Your task to perform on an android device: change your default location settings in chrome Image 0: 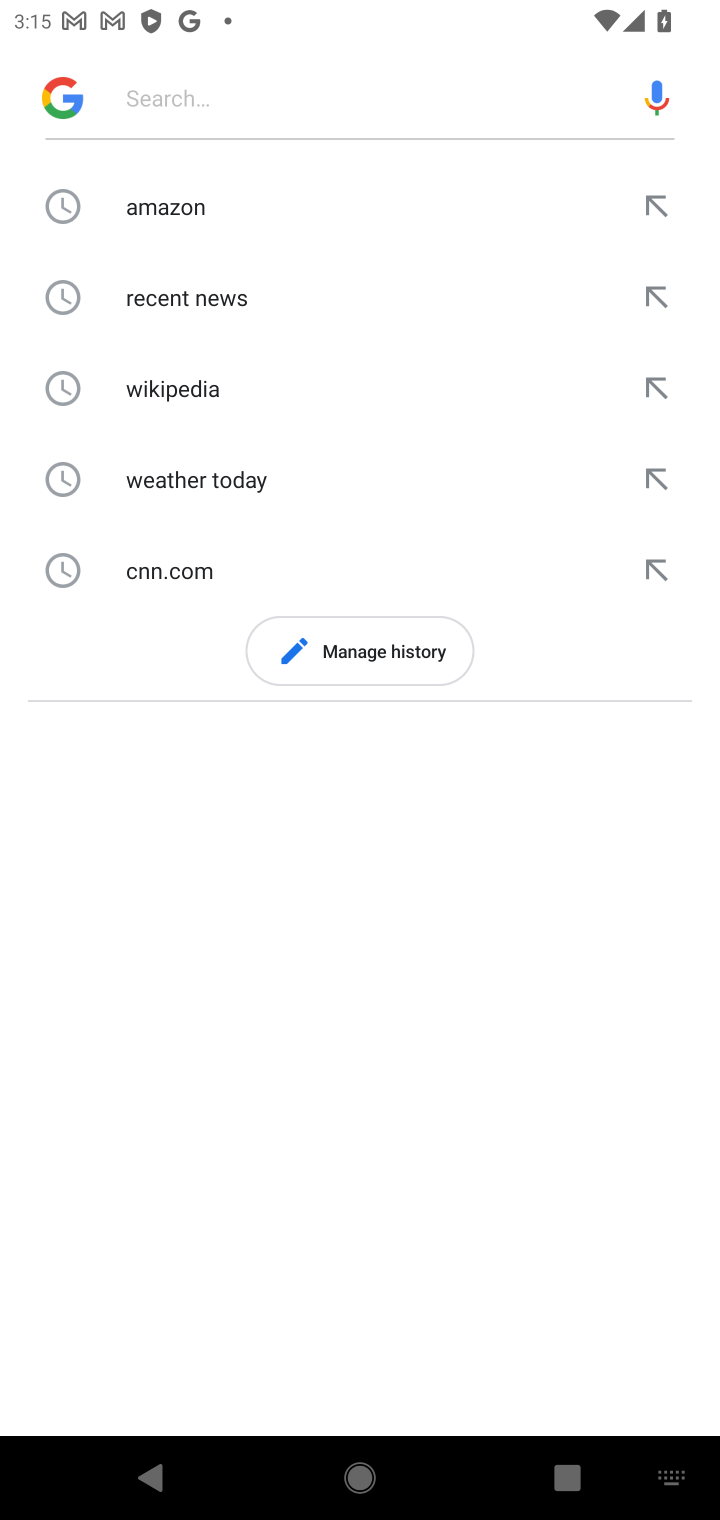
Step 0: press home button
Your task to perform on an android device: change your default location settings in chrome Image 1: 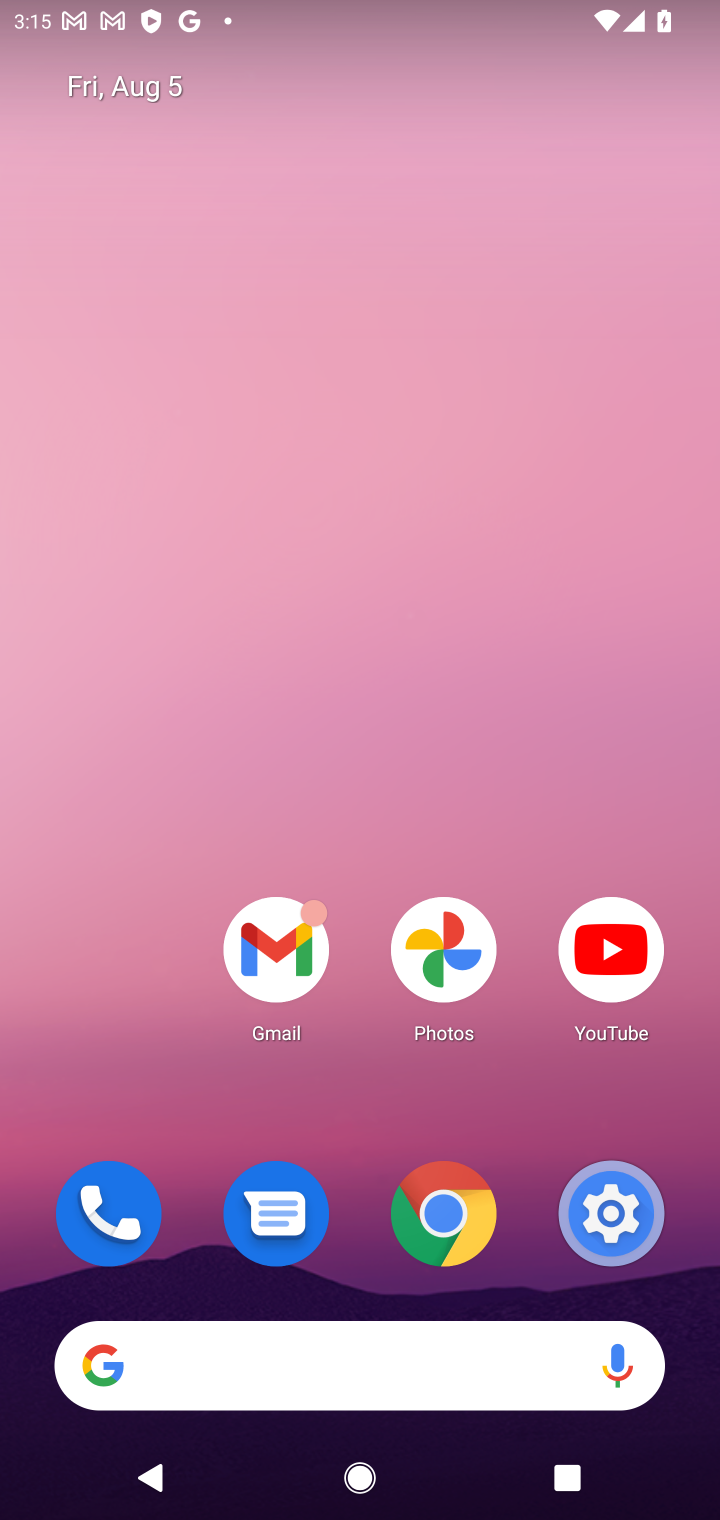
Step 1: click (566, 1235)
Your task to perform on an android device: change your default location settings in chrome Image 2: 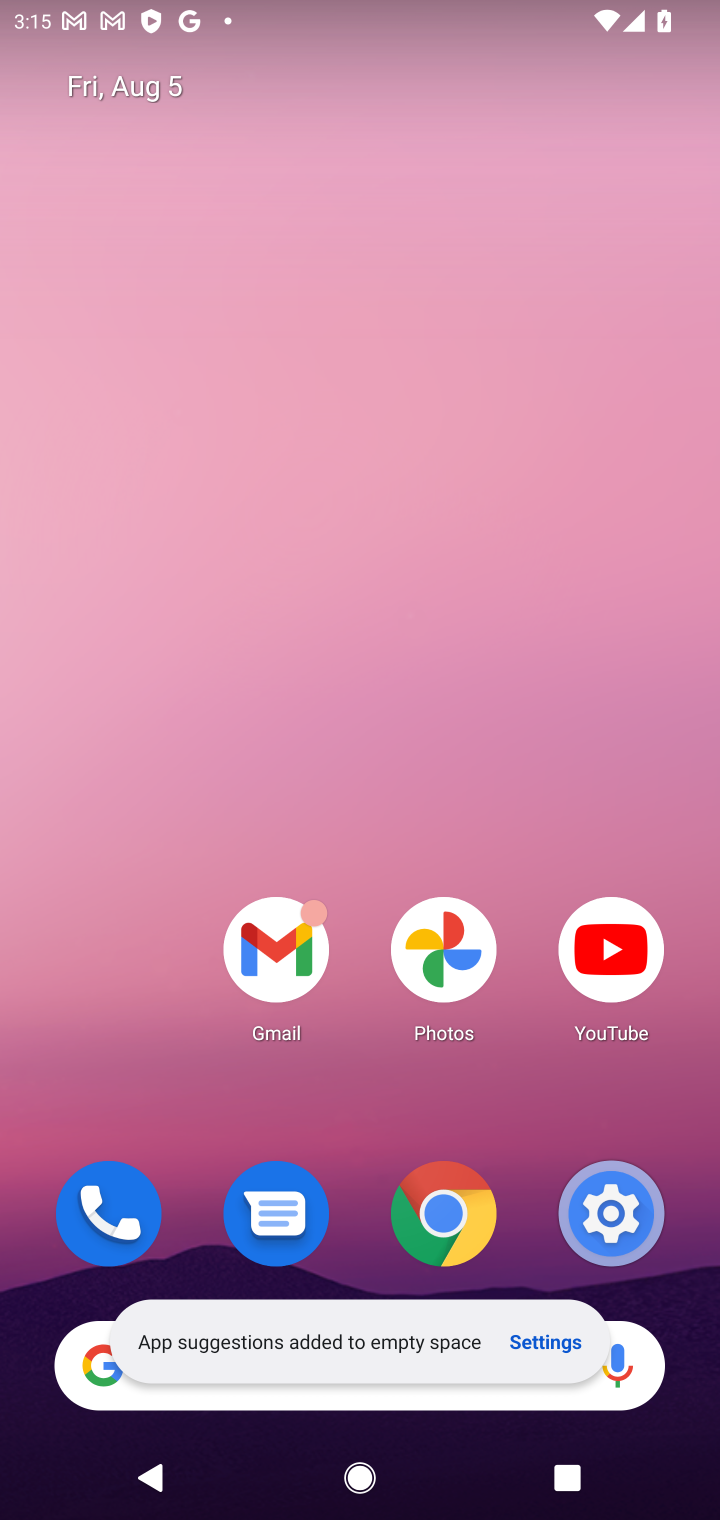
Step 2: click (622, 1222)
Your task to perform on an android device: change your default location settings in chrome Image 3: 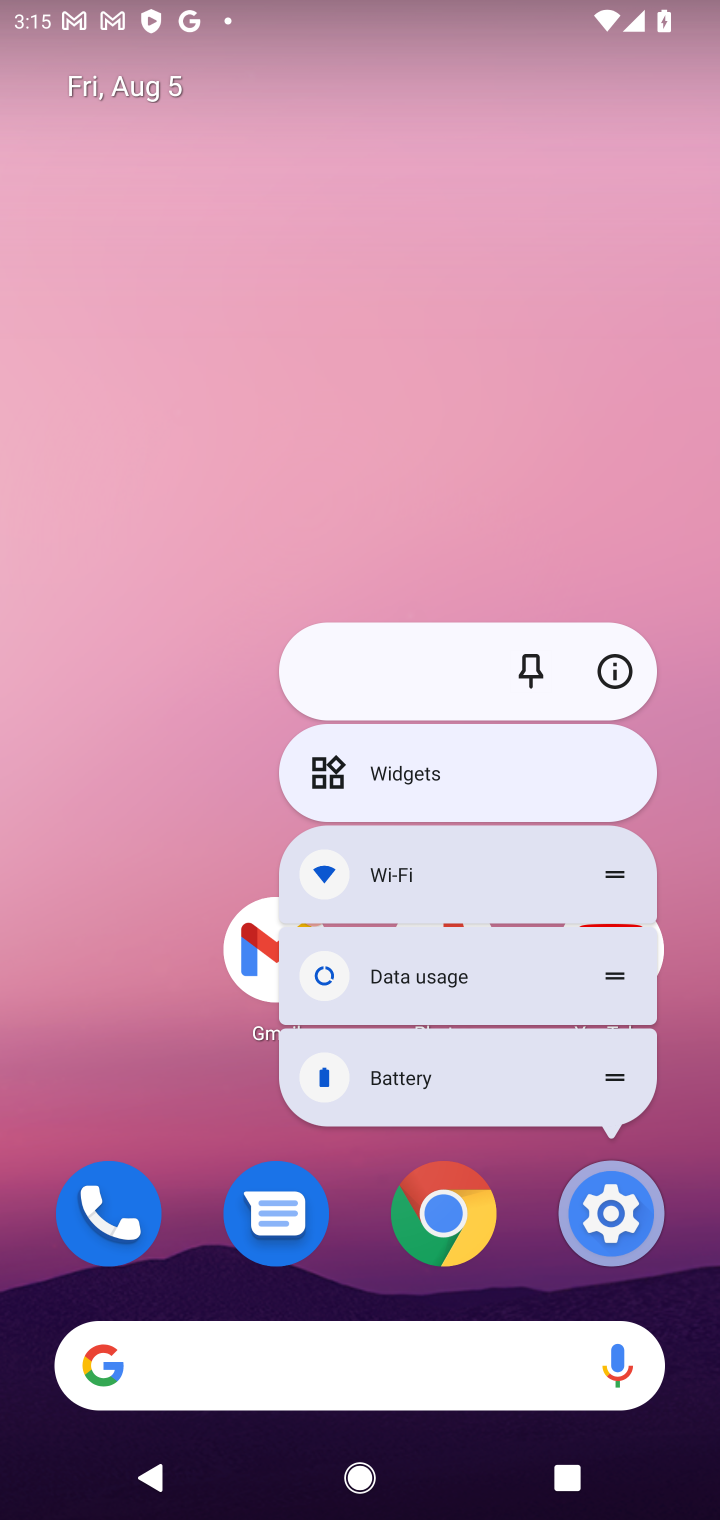
Step 3: click (158, 759)
Your task to perform on an android device: change your default location settings in chrome Image 4: 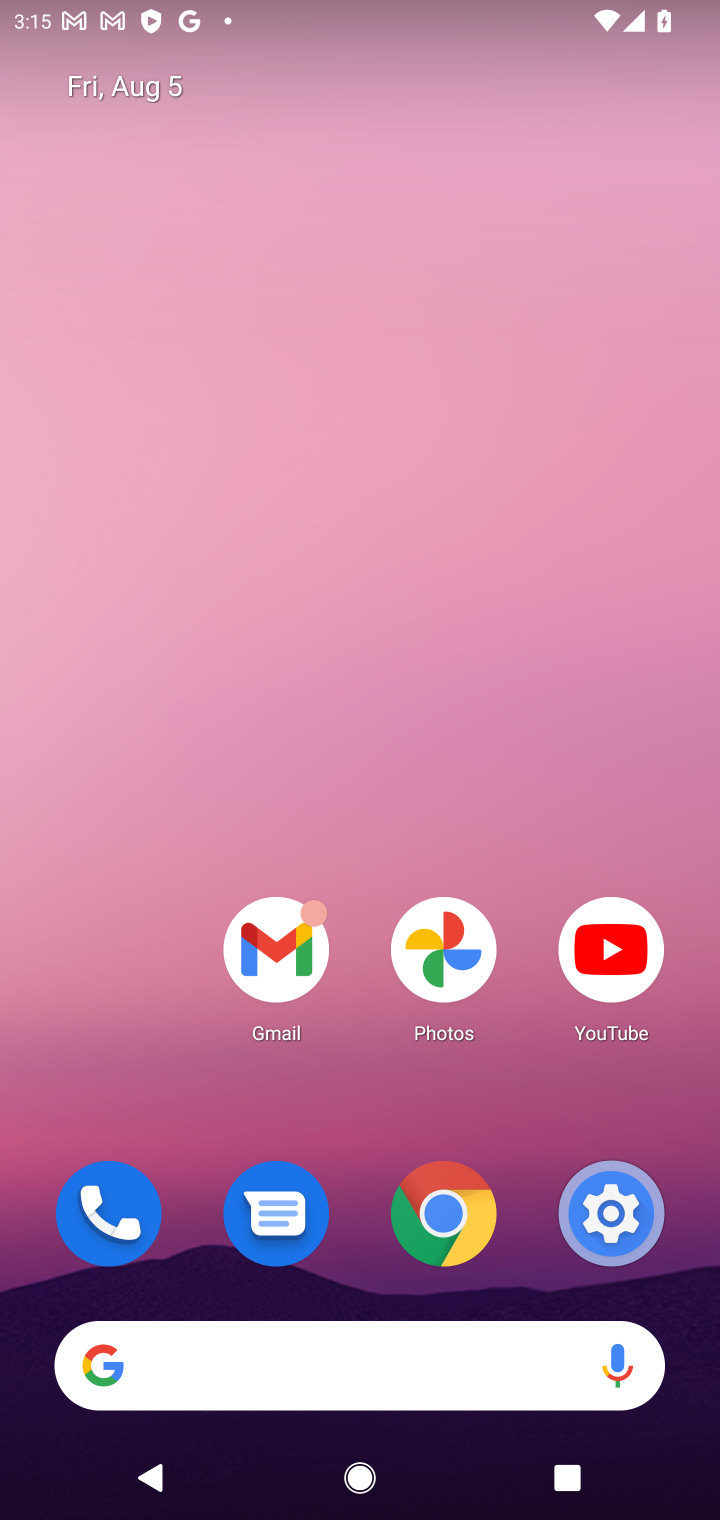
Step 4: click (625, 1232)
Your task to perform on an android device: change your default location settings in chrome Image 5: 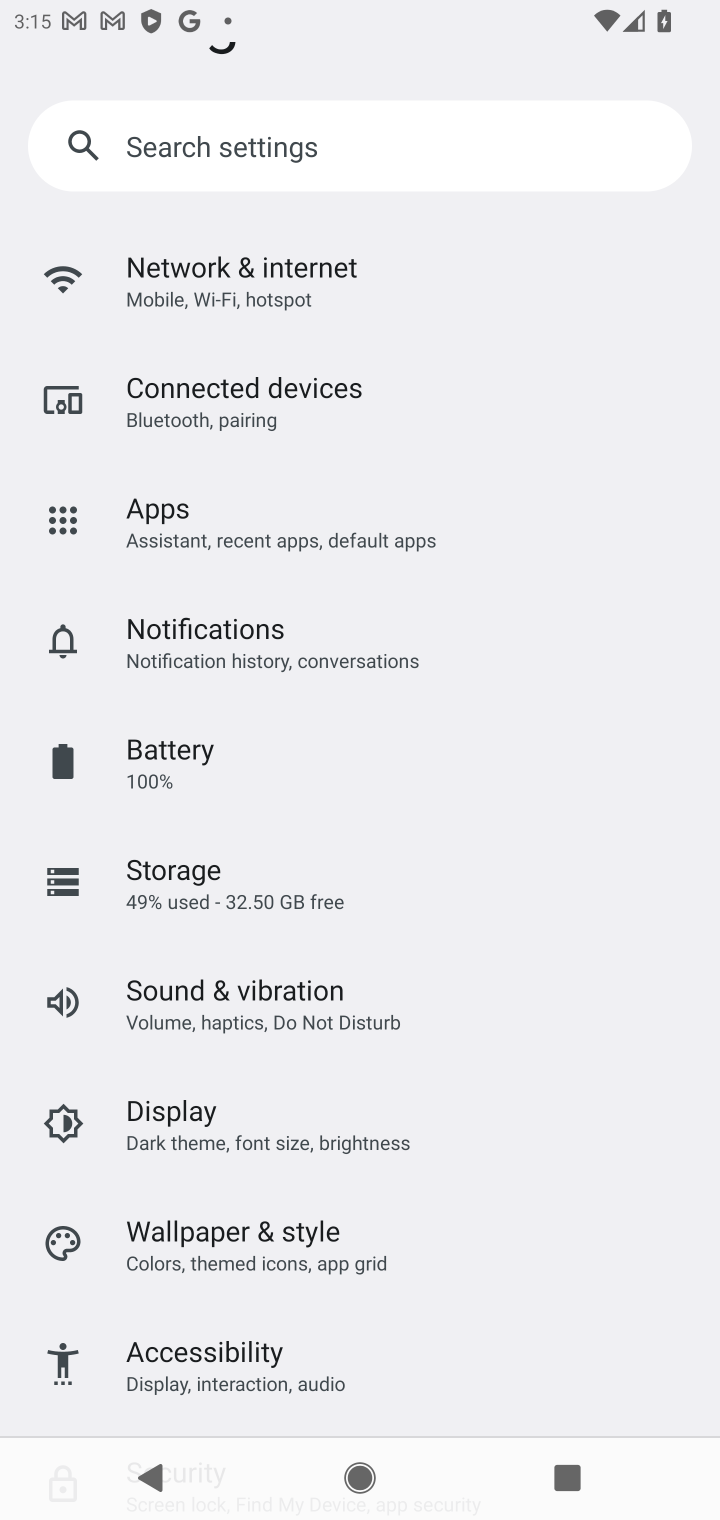
Step 5: task complete